Your task to perform on an android device: Search for seafood restaurants on Google Maps Image 0: 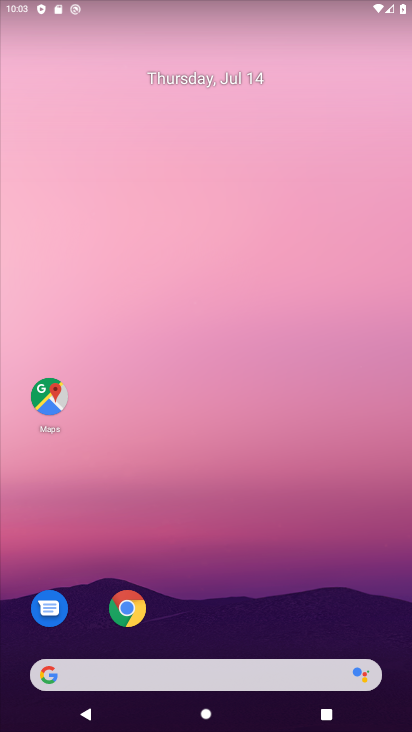
Step 0: drag from (184, 634) to (215, 87)
Your task to perform on an android device: Search for seafood restaurants on Google Maps Image 1: 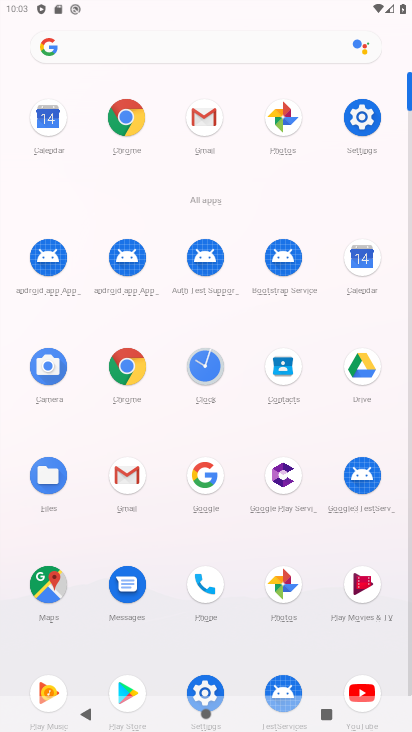
Step 1: click (40, 594)
Your task to perform on an android device: Search for seafood restaurants on Google Maps Image 2: 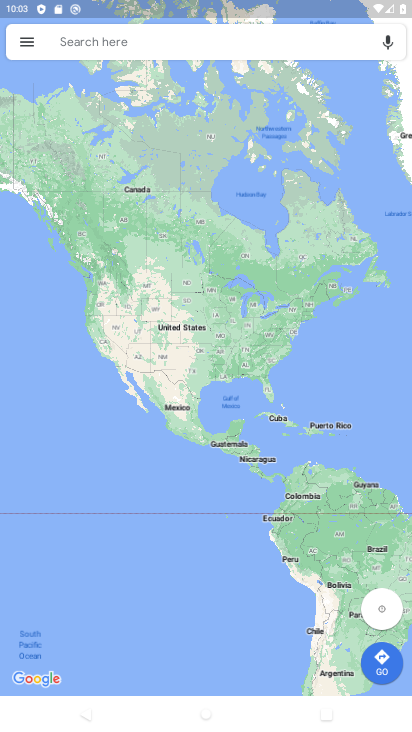
Step 2: click (83, 42)
Your task to perform on an android device: Search for seafood restaurants on Google Maps Image 3: 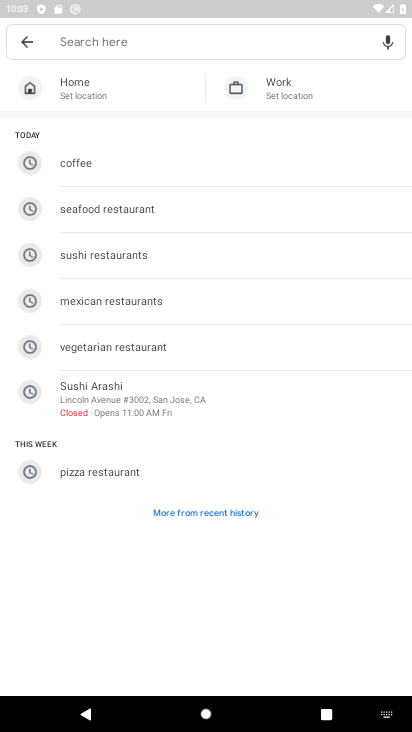
Step 3: click (86, 211)
Your task to perform on an android device: Search for seafood restaurants on Google Maps Image 4: 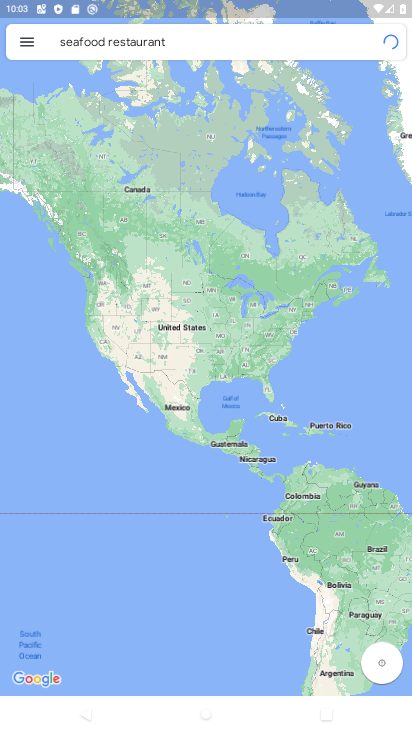
Step 4: task complete